Your task to perform on an android device: manage bookmarks in the chrome app Image 0: 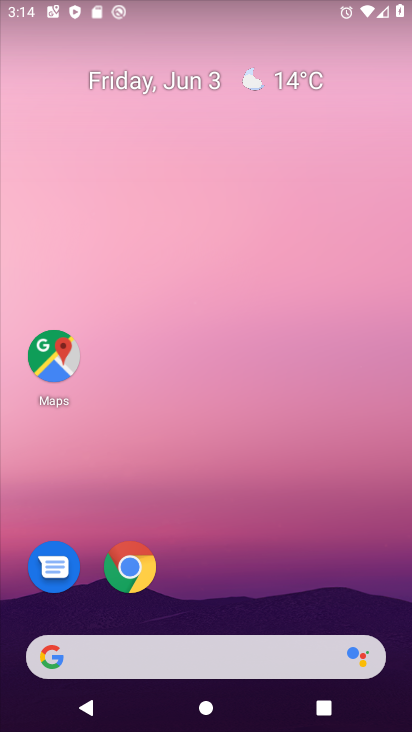
Step 0: click (195, 55)
Your task to perform on an android device: manage bookmarks in the chrome app Image 1: 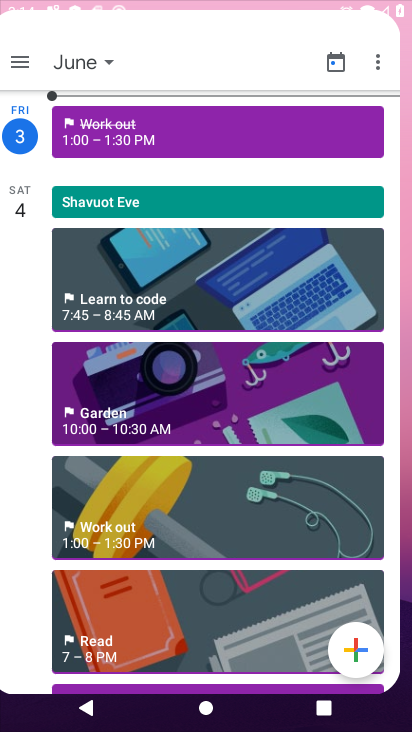
Step 1: drag from (202, 671) to (106, 32)
Your task to perform on an android device: manage bookmarks in the chrome app Image 2: 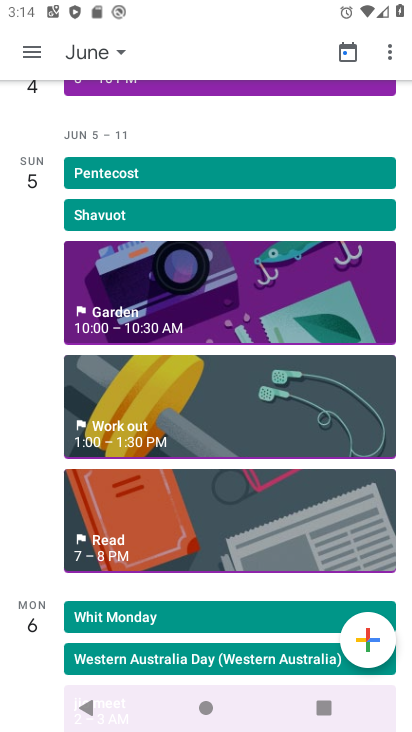
Step 2: press home button
Your task to perform on an android device: manage bookmarks in the chrome app Image 3: 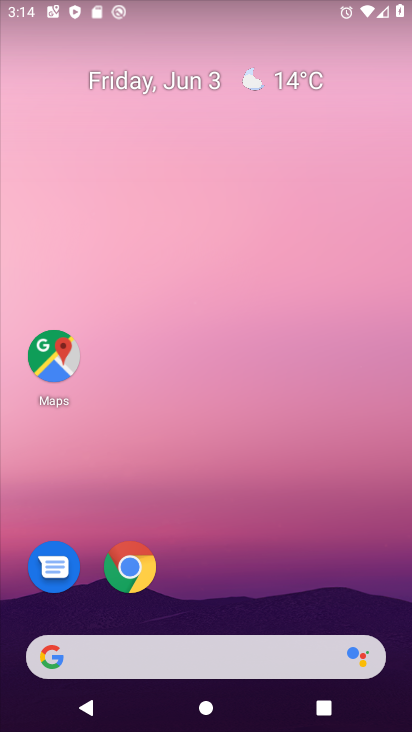
Step 3: drag from (248, 676) to (206, 76)
Your task to perform on an android device: manage bookmarks in the chrome app Image 4: 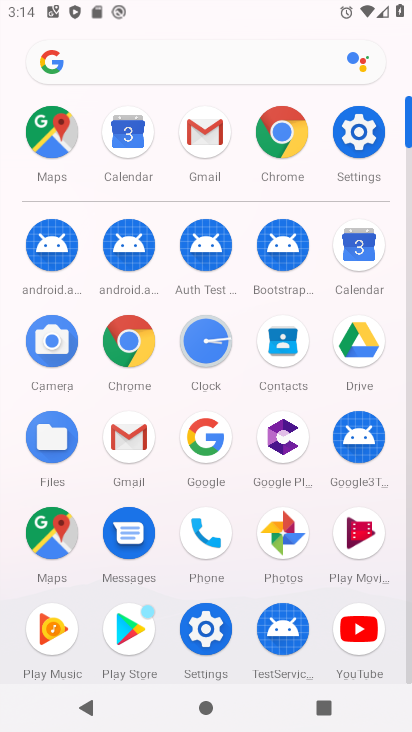
Step 4: click (269, 137)
Your task to perform on an android device: manage bookmarks in the chrome app Image 5: 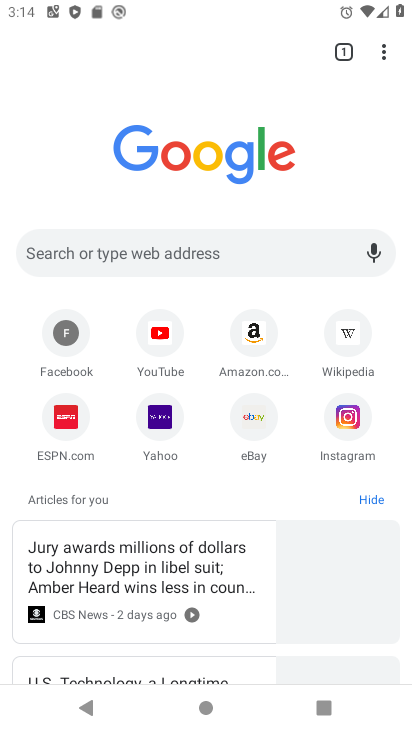
Step 5: click (387, 57)
Your task to perform on an android device: manage bookmarks in the chrome app Image 6: 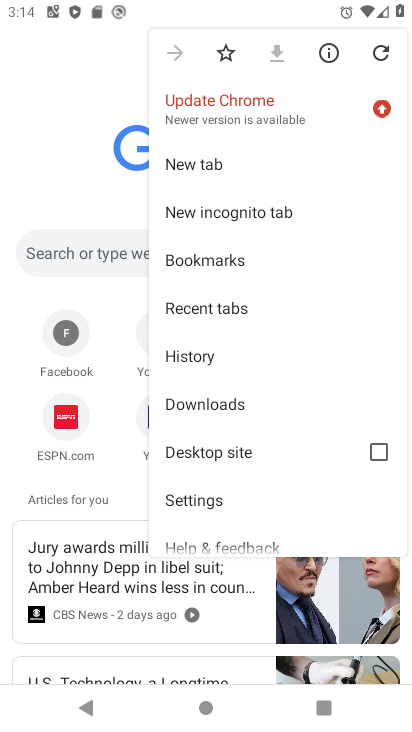
Step 6: click (218, 260)
Your task to perform on an android device: manage bookmarks in the chrome app Image 7: 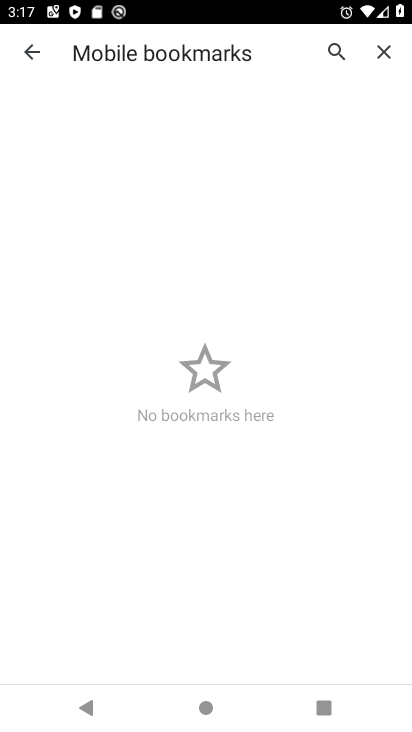
Step 7: task complete